Your task to perform on an android device: Check the weather Image 0: 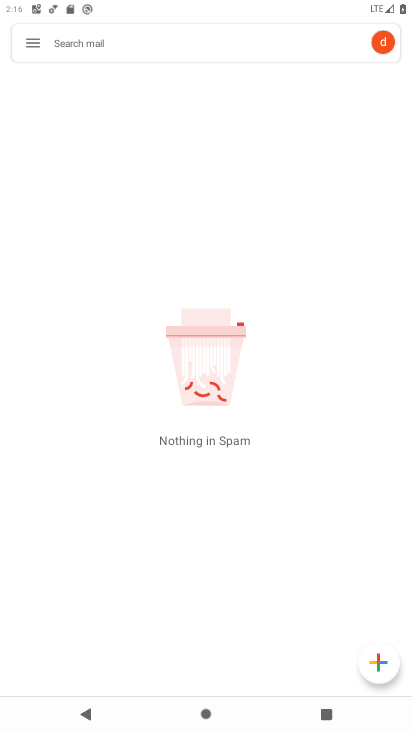
Step 0: press home button
Your task to perform on an android device: Check the weather Image 1: 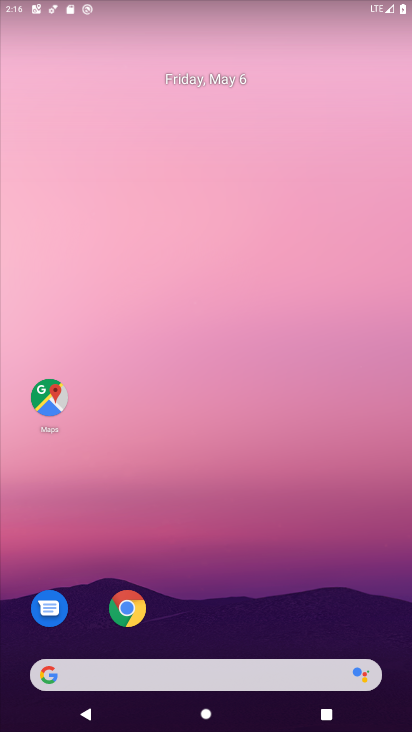
Step 1: drag from (169, 212) to (410, 352)
Your task to perform on an android device: Check the weather Image 2: 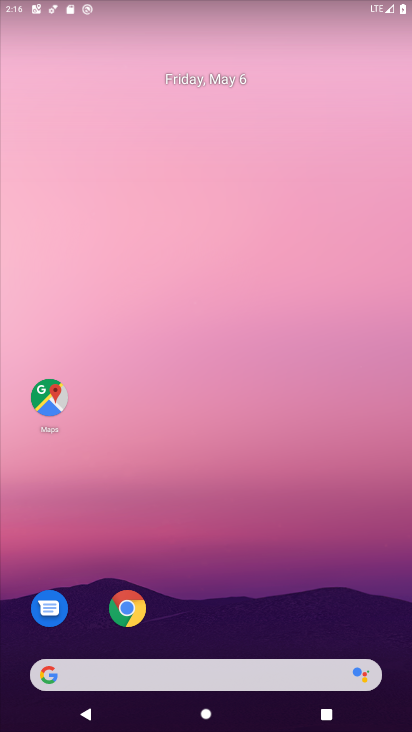
Step 2: drag from (371, 355) to (308, 338)
Your task to perform on an android device: Check the weather Image 3: 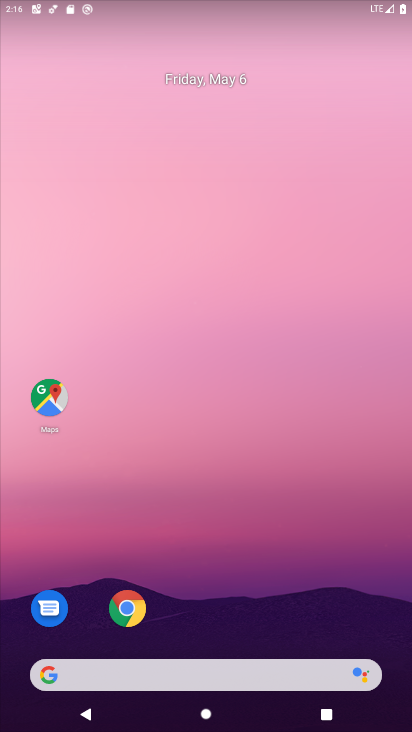
Step 3: click (211, 676)
Your task to perform on an android device: Check the weather Image 4: 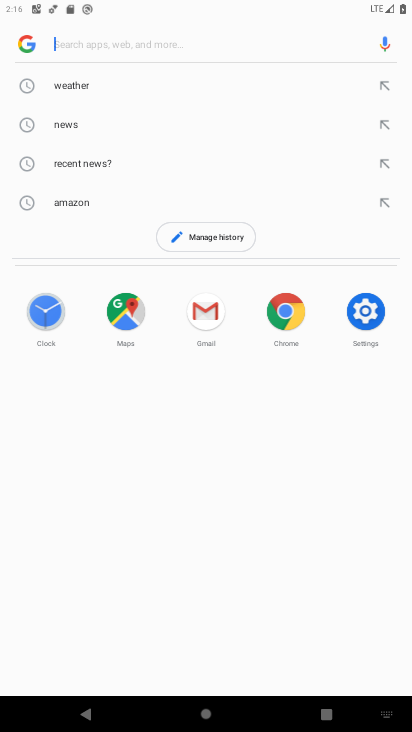
Step 4: click (83, 84)
Your task to perform on an android device: Check the weather Image 5: 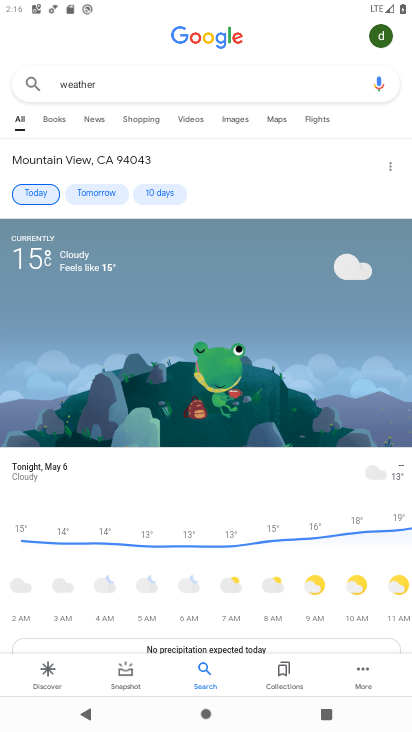
Step 5: task complete